Your task to perform on an android device: Check the news Image 0: 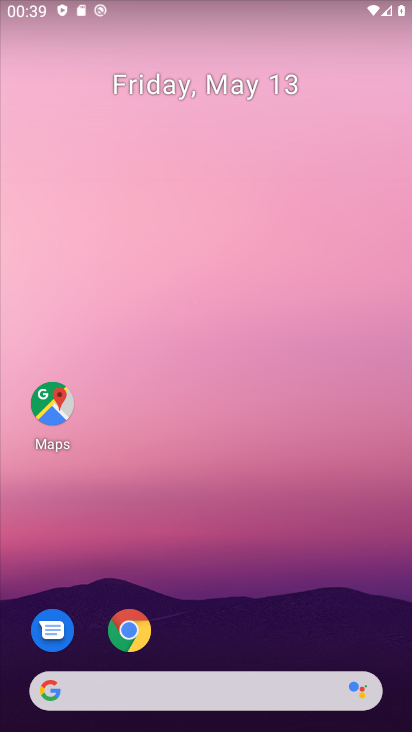
Step 0: drag from (252, 700) to (172, 282)
Your task to perform on an android device: Check the news Image 1: 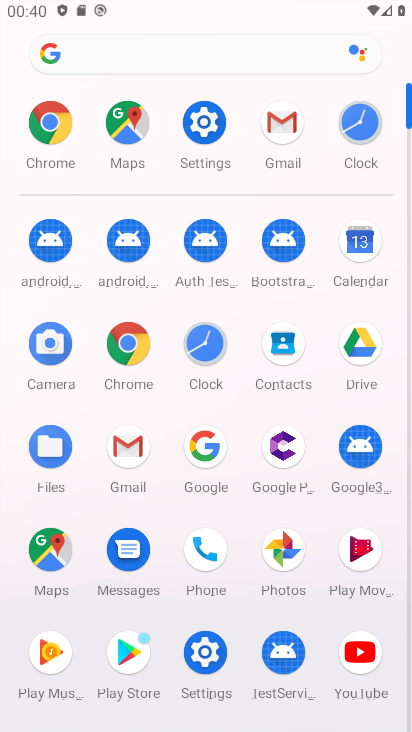
Step 1: click (56, 122)
Your task to perform on an android device: Check the news Image 2: 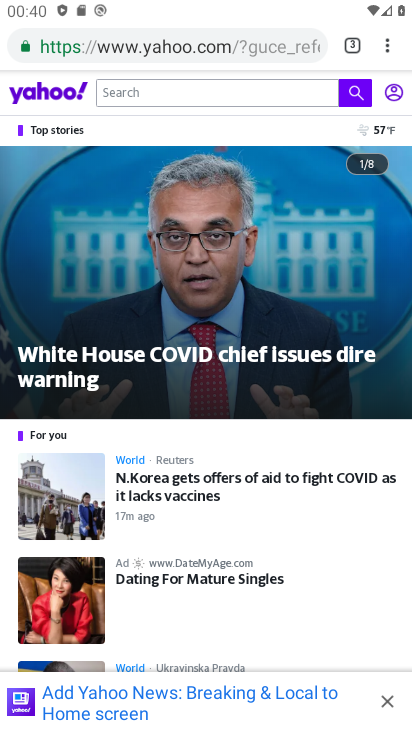
Step 2: click (351, 47)
Your task to perform on an android device: Check the news Image 3: 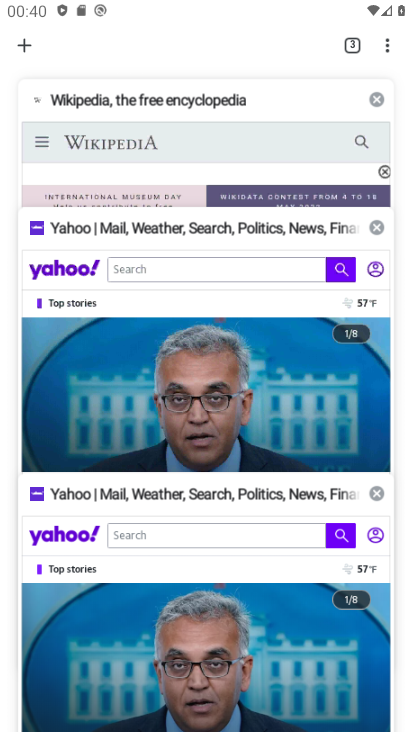
Step 3: click (31, 46)
Your task to perform on an android device: Check the news Image 4: 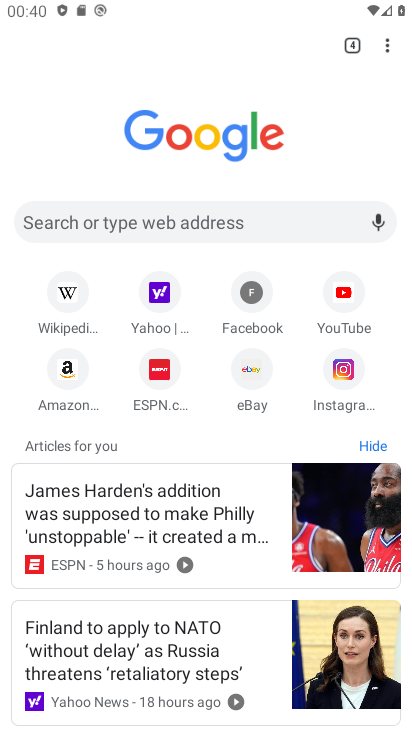
Step 4: click (109, 222)
Your task to perform on an android device: Check the news Image 5: 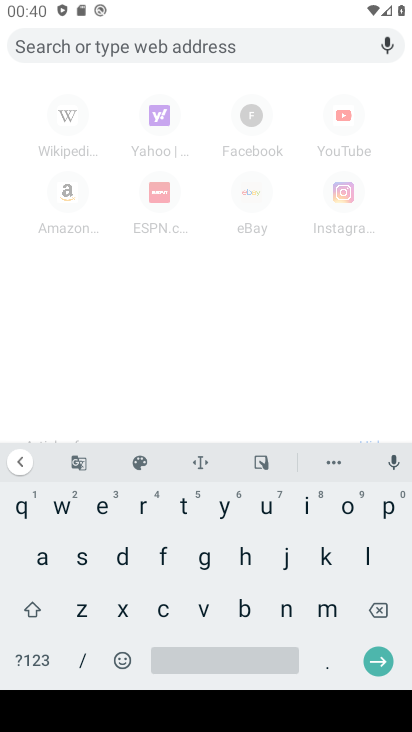
Step 5: click (282, 609)
Your task to perform on an android device: Check the news Image 6: 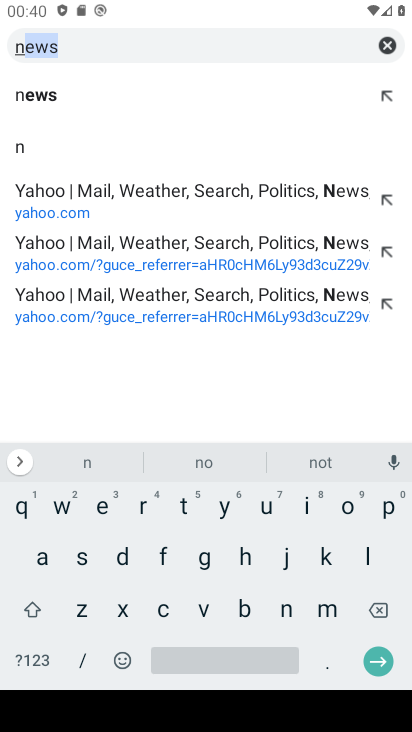
Step 6: click (73, 95)
Your task to perform on an android device: Check the news Image 7: 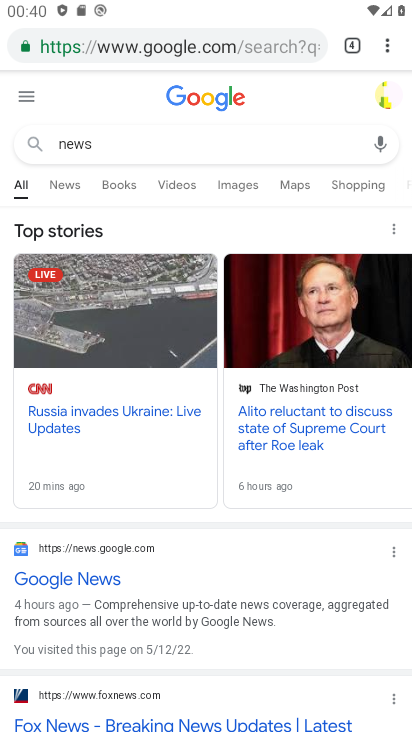
Step 7: task complete